Your task to perform on an android device: turn on showing notifications on the lock screen Image 0: 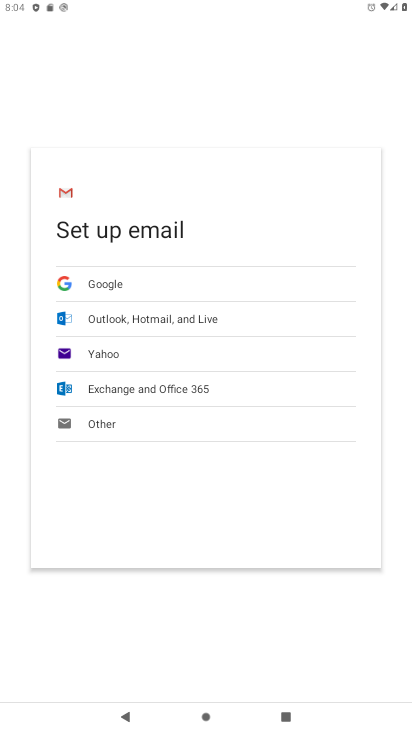
Step 0: press home button
Your task to perform on an android device: turn on showing notifications on the lock screen Image 1: 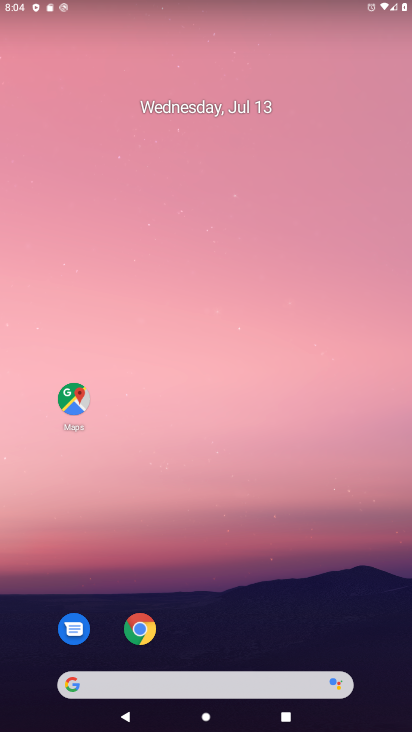
Step 1: drag from (252, 436) to (17, 62)
Your task to perform on an android device: turn on showing notifications on the lock screen Image 2: 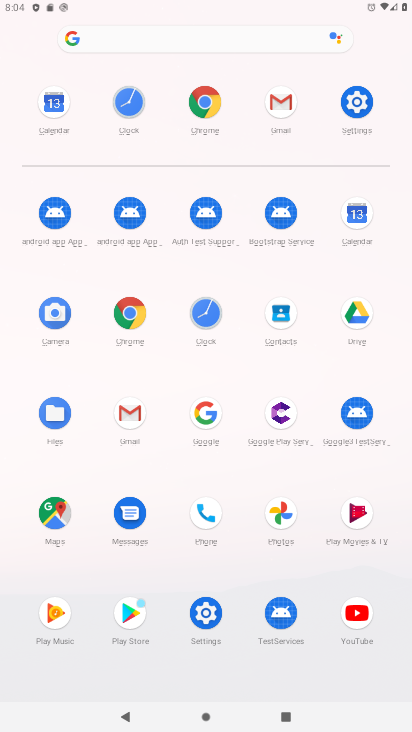
Step 2: click (358, 91)
Your task to perform on an android device: turn on showing notifications on the lock screen Image 3: 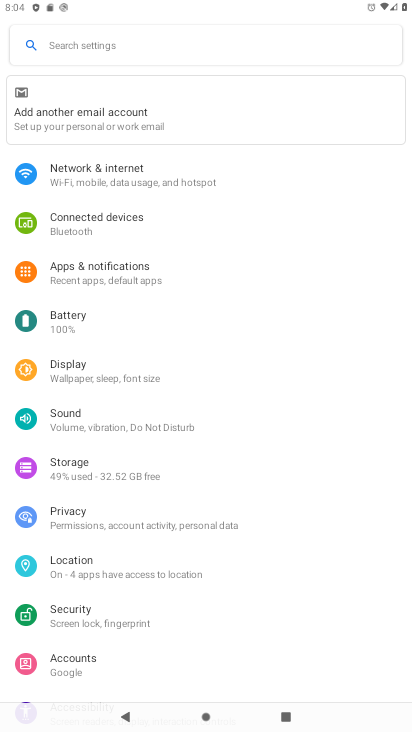
Step 3: click (108, 281)
Your task to perform on an android device: turn on showing notifications on the lock screen Image 4: 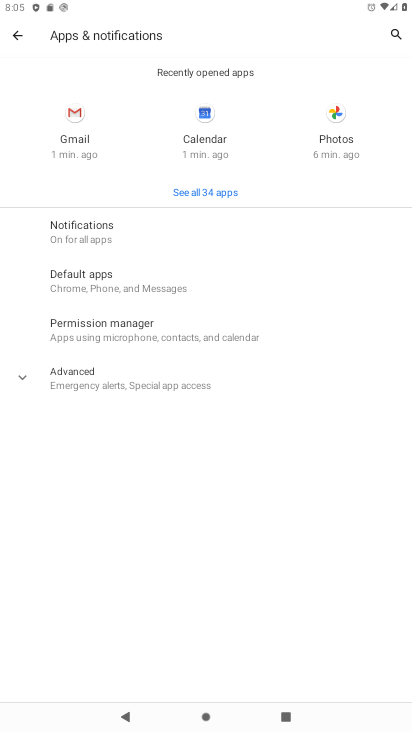
Step 4: click (96, 238)
Your task to perform on an android device: turn on showing notifications on the lock screen Image 5: 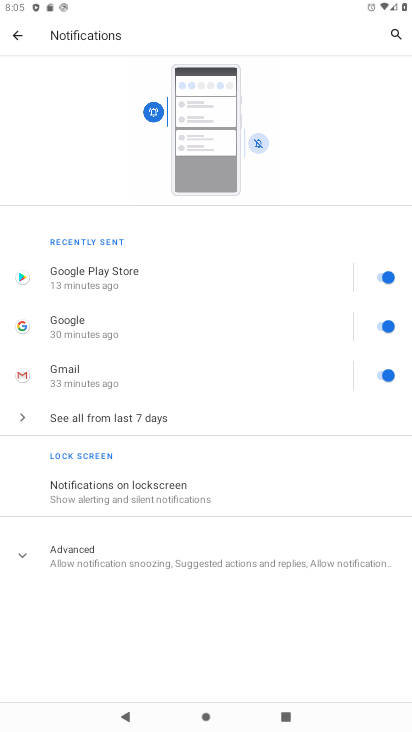
Step 5: click (125, 488)
Your task to perform on an android device: turn on showing notifications on the lock screen Image 6: 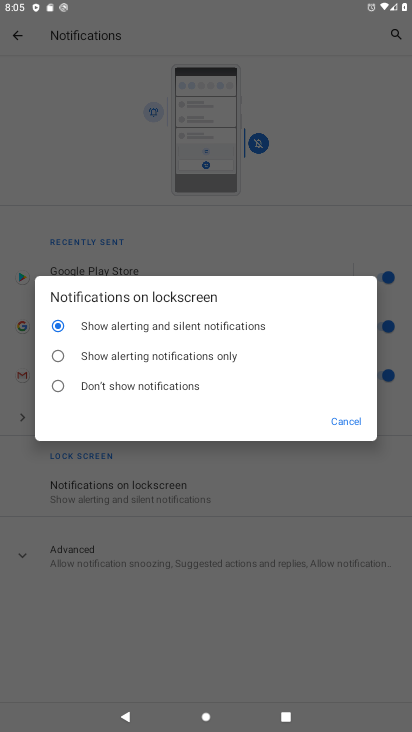
Step 6: click (139, 361)
Your task to perform on an android device: turn on showing notifications on the lock screen Image 7: 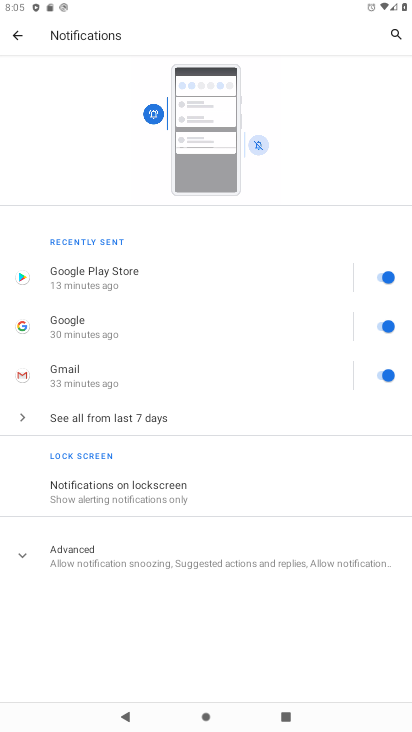
Step 7: task complete